Your task to perform on an android device: find snoozed emails in the gmail app Image 0: 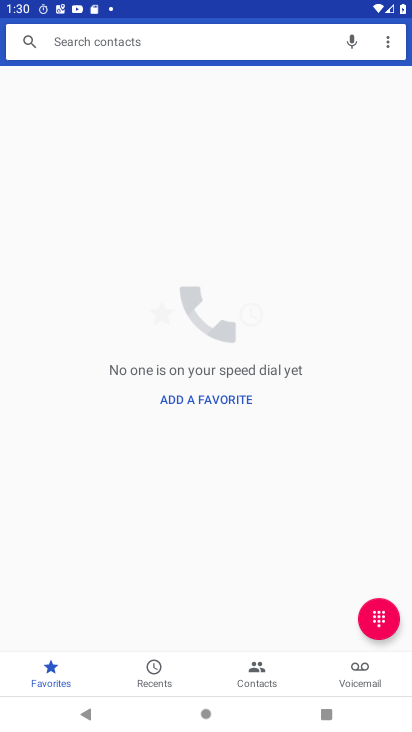
Step 0: press home button
Your task to perform on an android device: find snoozed emails in the gmail app Image 1: 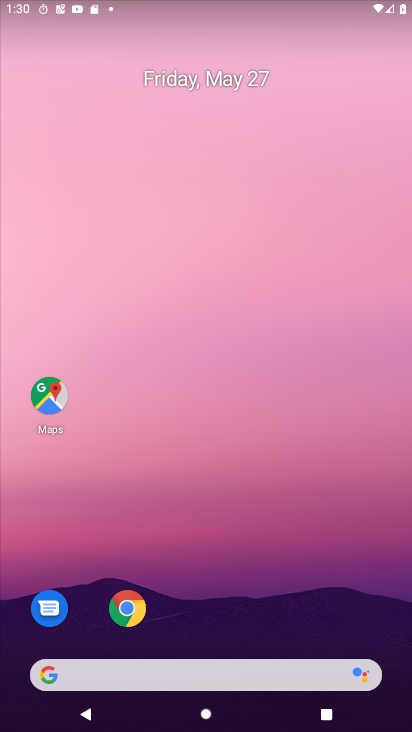
Step 1: drag from (401, 658) to (351, 105)
Your task to perform on an android device: find snoozed emails in the gmail app Image 2: 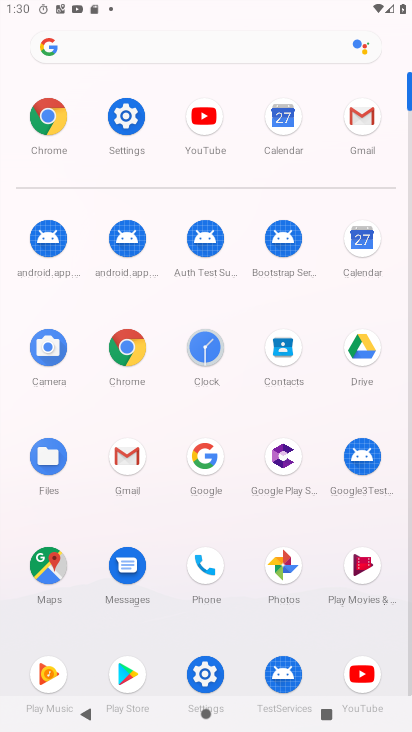
Step 2: click (130, 456)
Your task to perform on an android device: find snoozed emails in the gmail app Image 3: 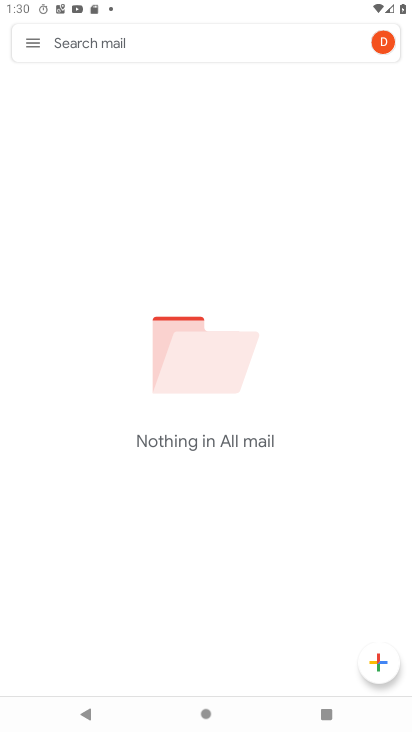
Step 3: click (21, 43)
Your task to perform on an android device: find snoozed emails in the gmail app Image 4: 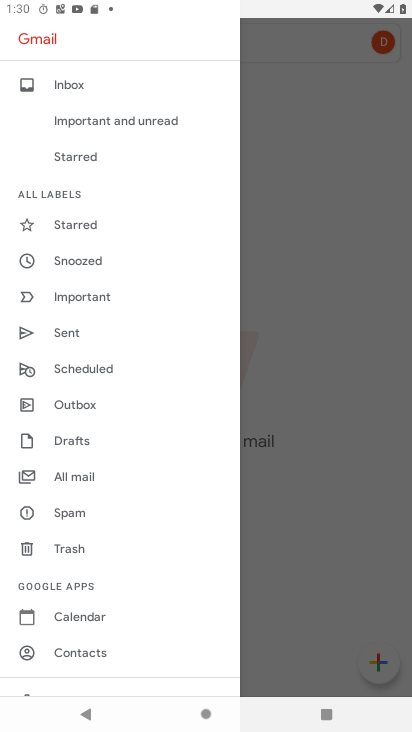
Step 4: click (67, 258)
Your task to perform on an android device: find snoozed emails in the gmail app Image 5: 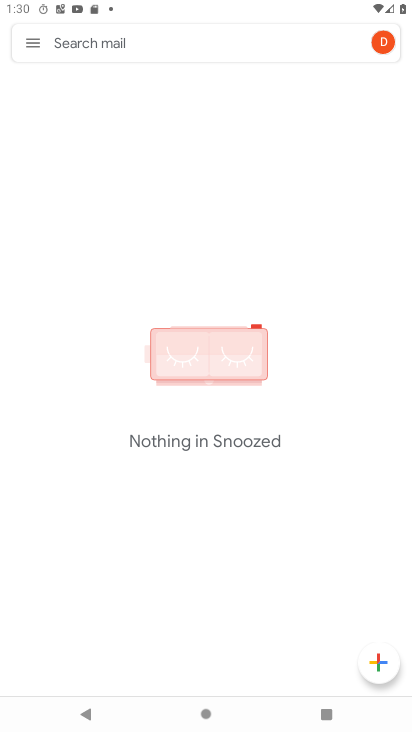
Step 5: task complete